Your task to perform on an android device: Open display settings Image 0: 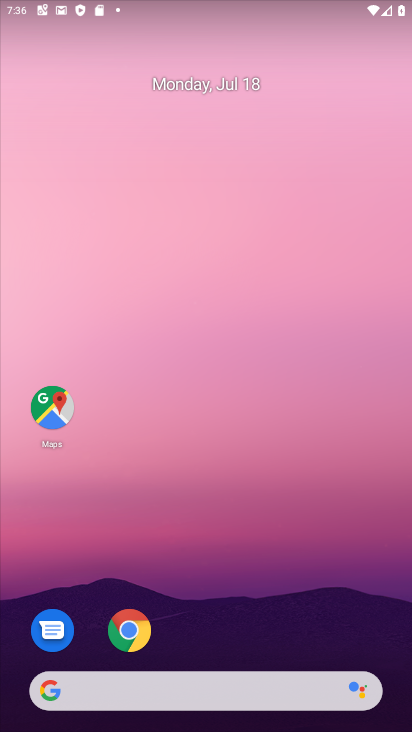
Step 0: drag from (312, 467) to (310, 215)
Your task to perform on an android device: Open display settings Image 1: 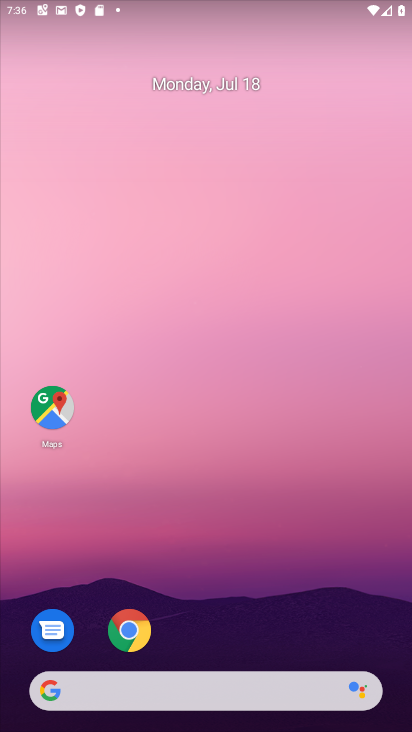
Step 1: drag from (206, 580) to (195, 207)
Your task to perform on an android device: Open display settings Image 2: 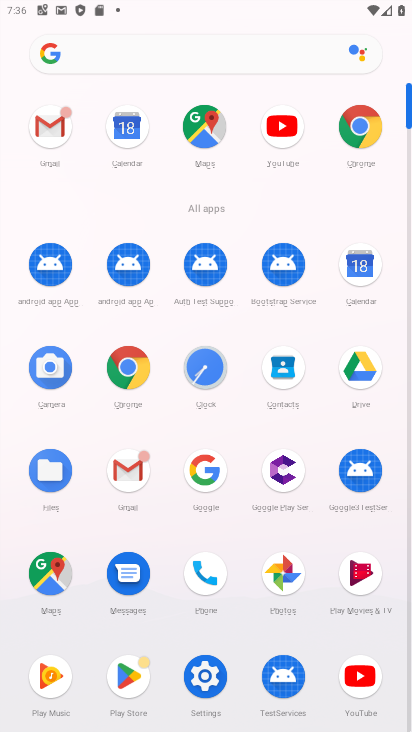
Step 2: click (203, 661)
Your task to perform on an android device: Open display settings Image 3: 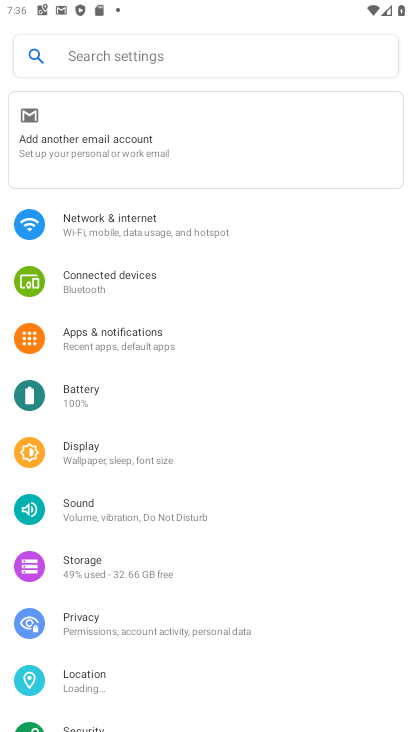
Step 3: click (109, 450)
Your task to perform on an android device: Open display settings Image 4: 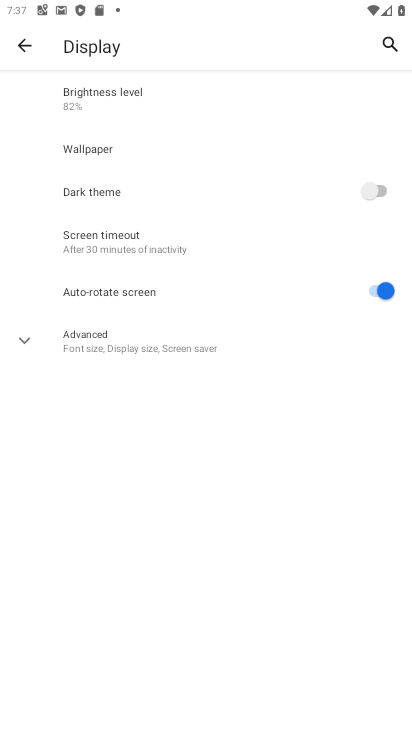
Step 4: task complete